Your task to perform on an android device: Go to Maps Image 0: 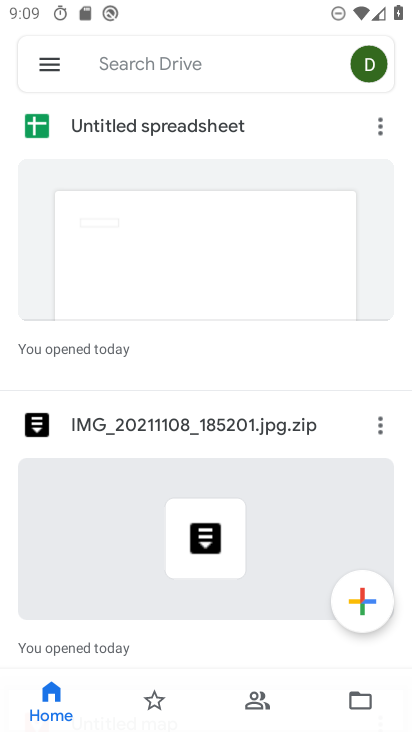
Step 0: press back button
Your task to perform on an android device: Go to Maps Image 1: 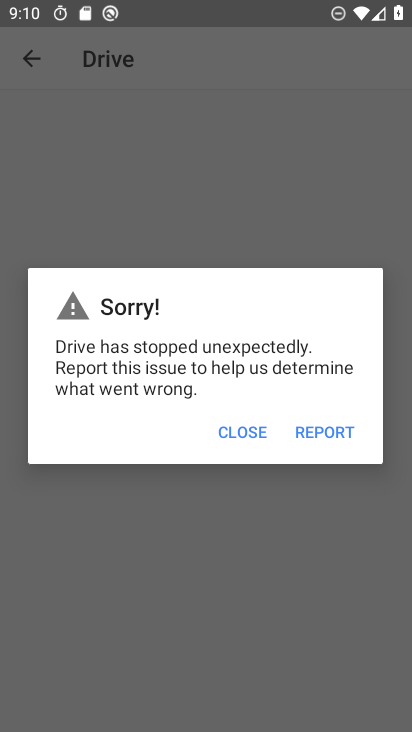
Step 1: press home button
Your task to perform on an android device: Go to Maps Image 2: 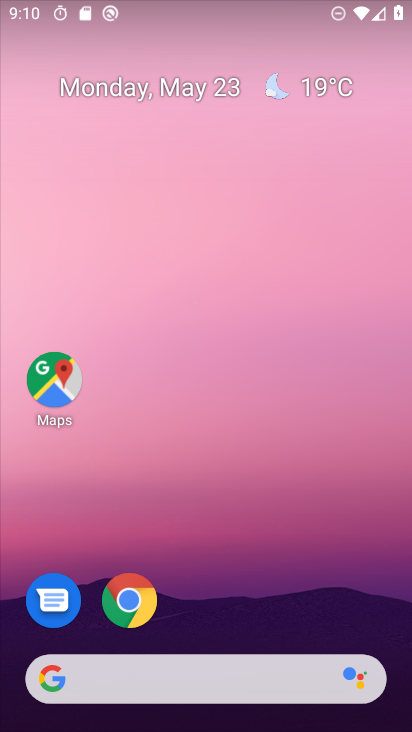
Step 2: click (58, 377)
Your task to perform on an android device: Go to Maps Image 3: 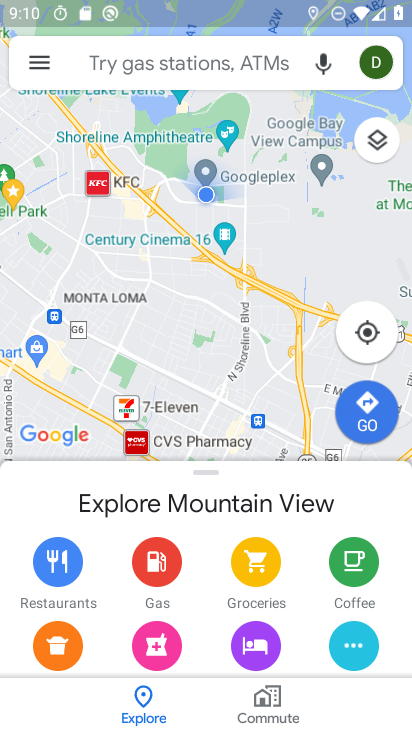
Step 3: task complete